Your task to perform on an android device: change notification settings in the gmail app Image 0: 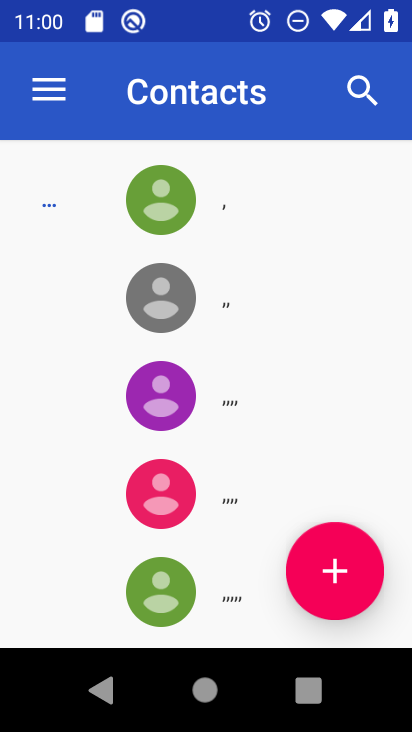
Step 0: press home button
Your task to perform on an android device: change notification settings in the gmail app Image 1: 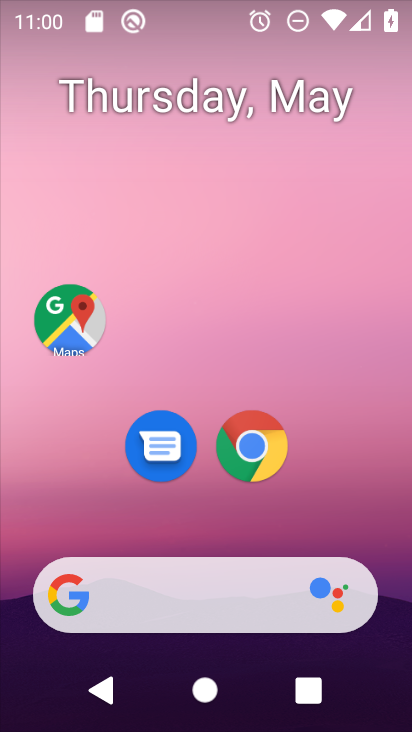
Step 1: drag from (268, 635) to (229, 494)
Your task to perform on an android device: change notification settings in the gmail app Image 2: 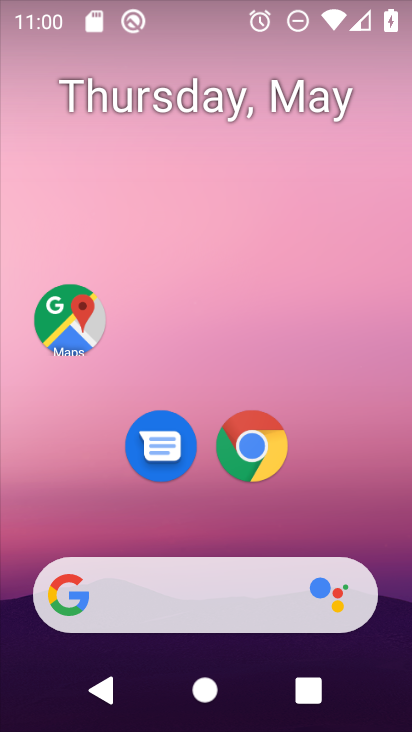
Step 2: drag from (261, 664) to (233, 258)
Your task to perform on an android device: change notification settings in the gmail app Image 3: 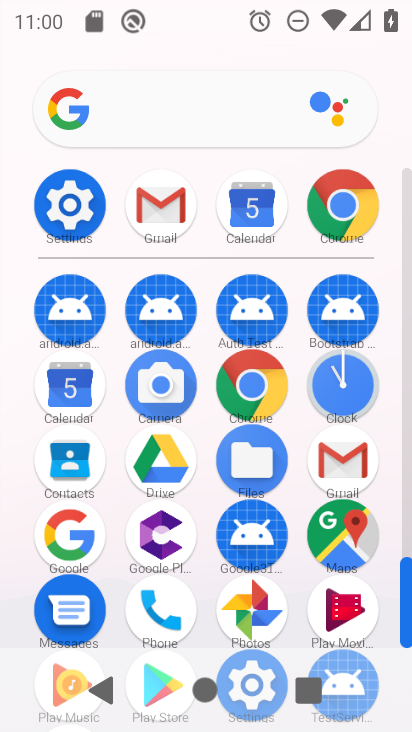
Step 3: click (333, 470)
Your task to perform on an android device: change notification settings in the gmail app Image 4: 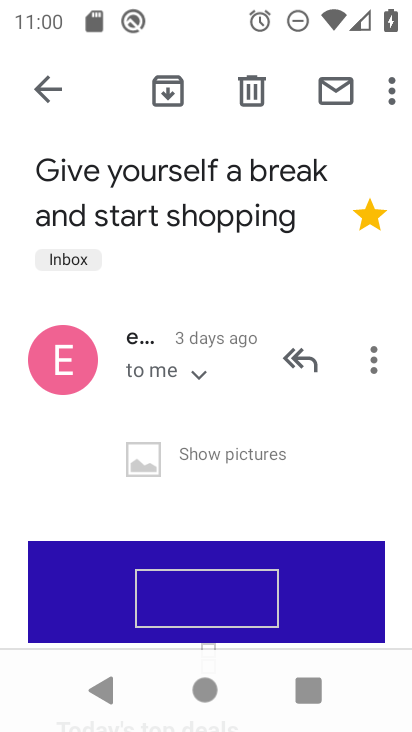
Step 4: click (53, 98)
Your task to perform on an android device: change notification settings in the gmail app Image 5: 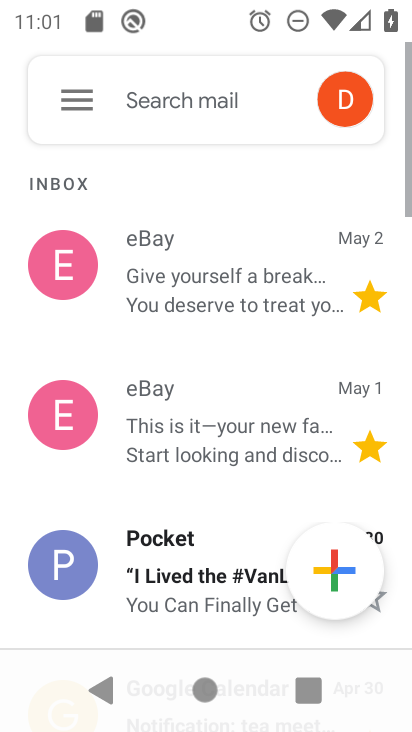
Step 5: click (82, 110)
Your task to perform on an android device: change notification settings in the gmail app Image 6: 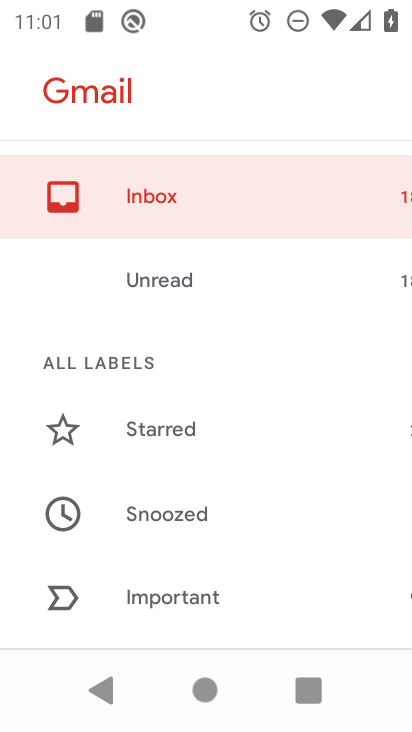
Step 6: drag from (184, 482) to (281, 249)
Your task to perform on an android device: change notification settings in the gmail app Image 7: 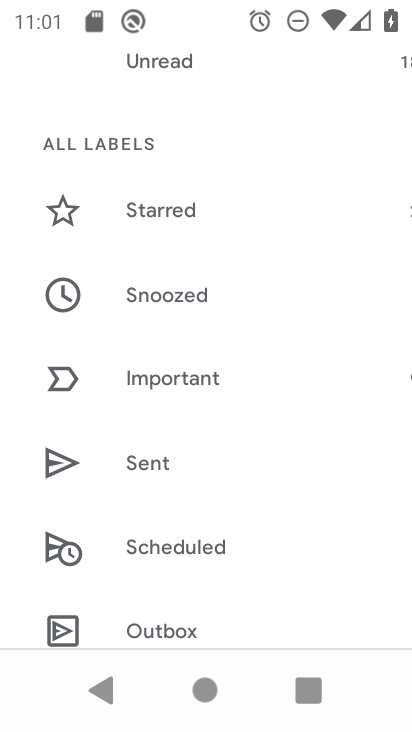
Step 7: drag from (147, 542) to (257, 202)
Your task to perform on an android device: change notification settings in the gmail app Image 8: 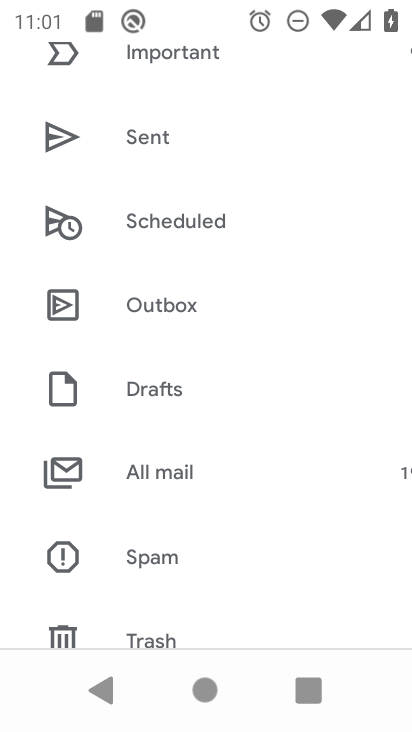
Step 8: drag from (166, 505) to (228, 282)
Your task to perform on an android device: change notification settings in the gmail app Image 9: 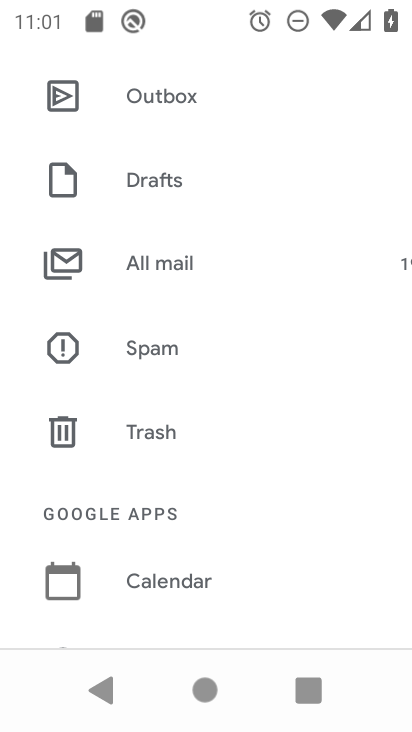
Step 9: drag from (159, 569) to (226, 308)
Your task to perform on an android device: change notification settings in the gmail app Image 10: 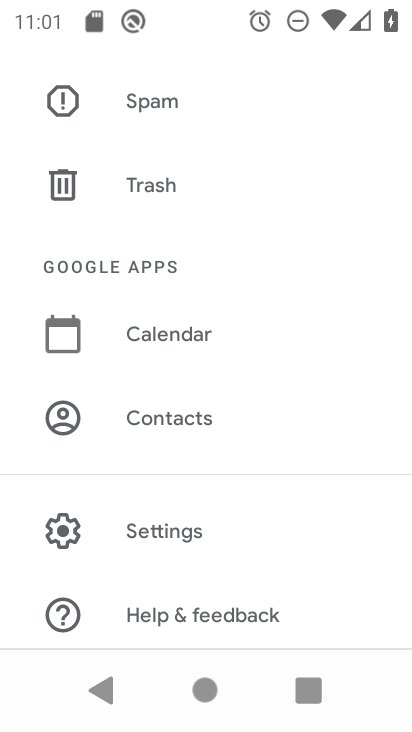
Step 10: click (151, 528)
Your task to perform on an android device: change notification settings in the gmail app Image 11: 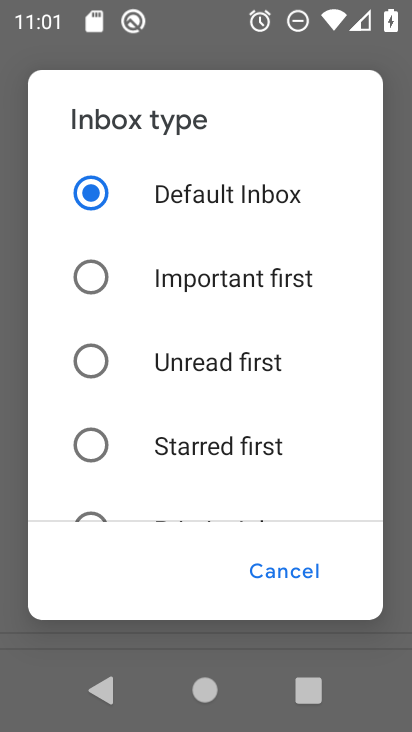
Step 11: click (252, 580)
Your task to perform on an android device: change notification settings in the gmail app Image 12: 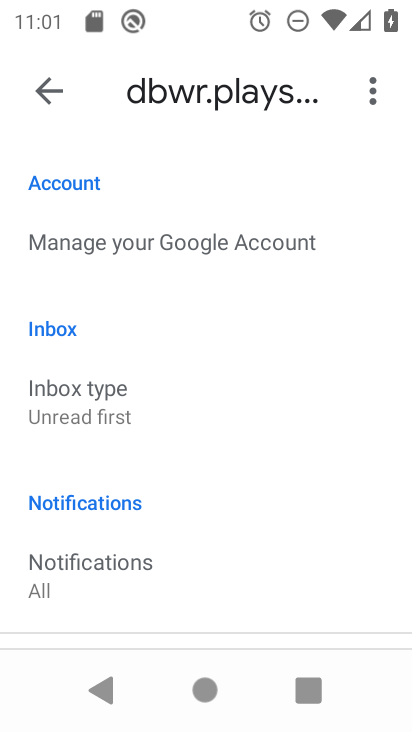
Step 12: click (160, 568)
Your task to perform on an android device: change notification settings in the gmail app Image 13: 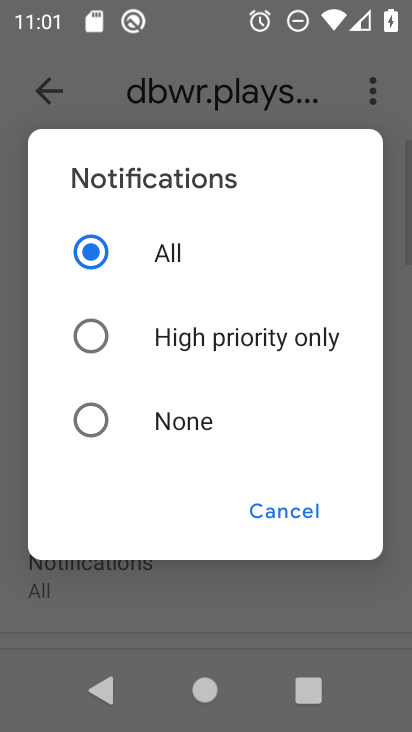
Step 13: click (219, 332)
Your task to perform on an android device: change notification settings in the gmail app Image 14: 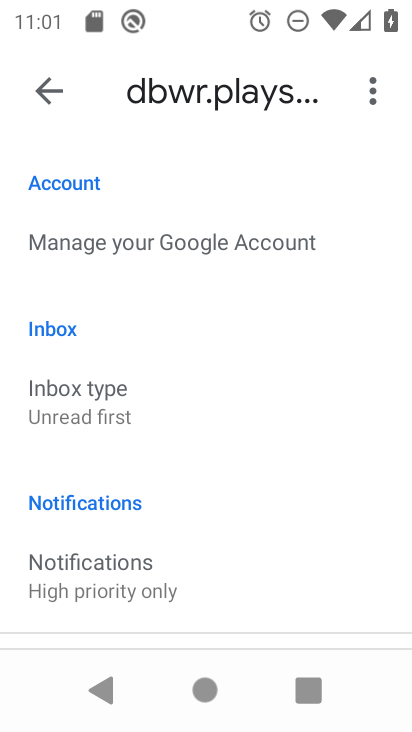
Step 14: task complete